Your task to perform on an android device: create a new album in the google photos Image 0: 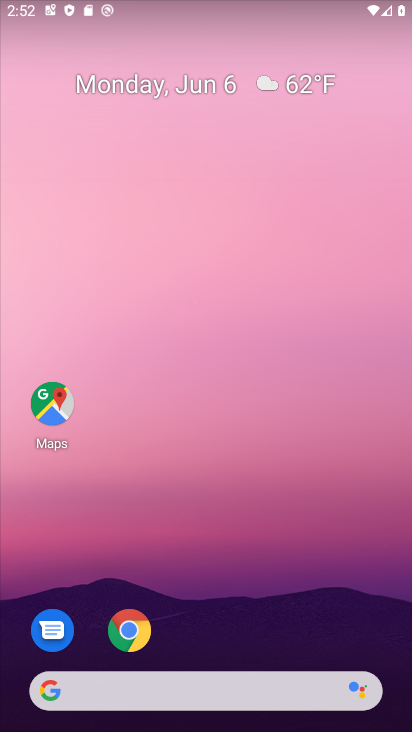
Step 0: drag from (250, 630) to (216, 351)
Your task to perform on an android device: create a new album in the google photos Image 1: 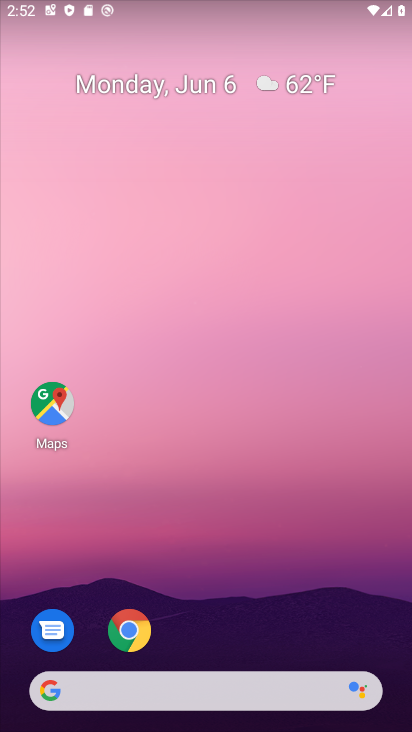
Step 1: drag from (193, 576) to (188, 246)
Your task to perform on an android device: create a new album in the google photos Image 2: 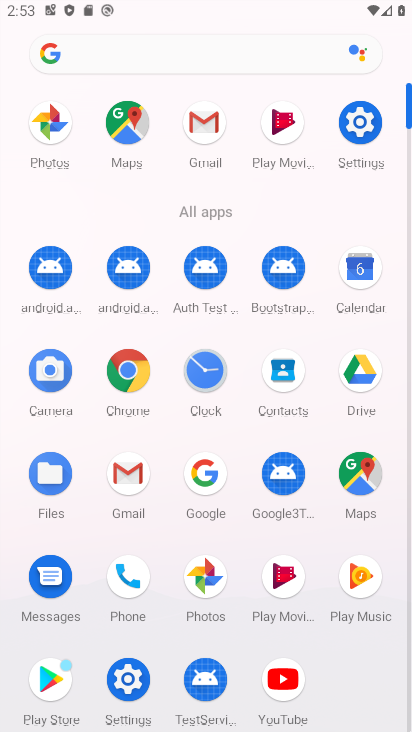
Step 2: click (206, 605)
Your task to perform on an android device: create a new album in the google photos Image 3: 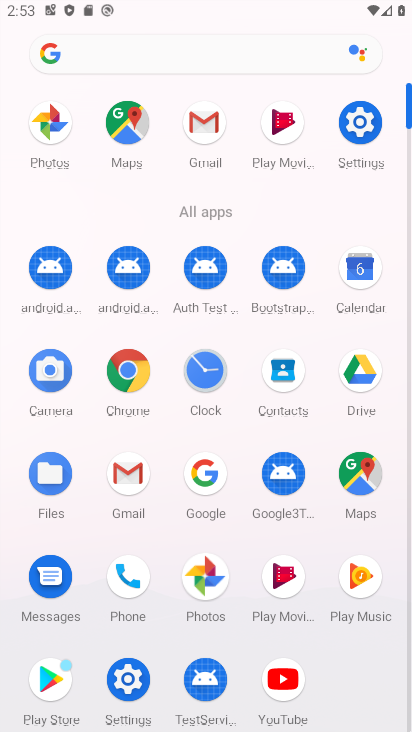
Step 3: click (194, 560)
Your task to perform on an android device: create a new album in the google photos Image 4: 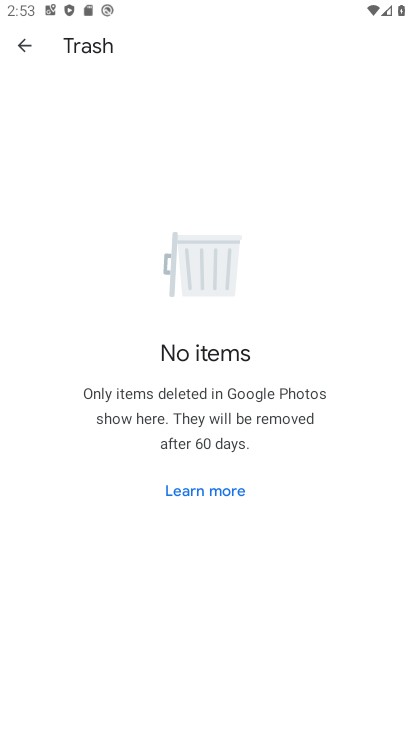
Step 4: click (17, 32)
Your task to perform on an android device: create a new album in the google photos Image 5: 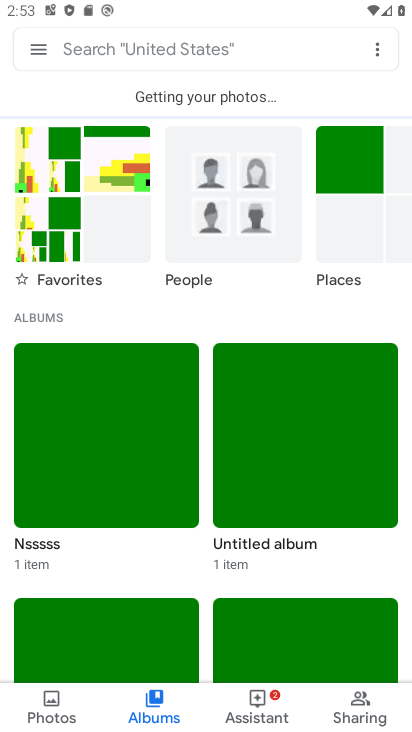
Step 5: click (28, 162)
Your task to perform on an android device: create a new album in the google photos Image 6: 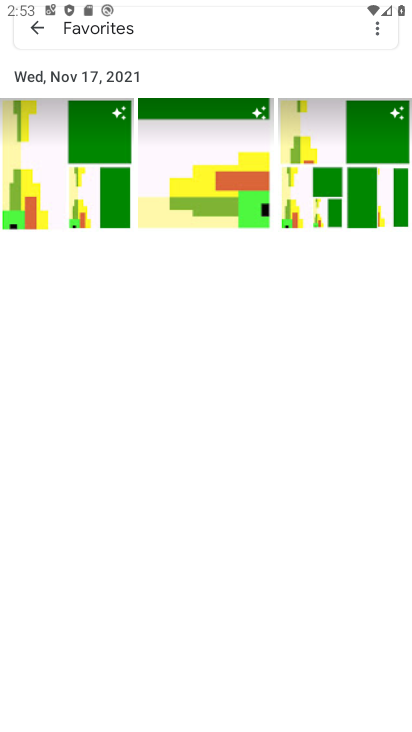
Step 6: click (47, 162)
Your task to perform on an android device: create a new album in the google photos Image 7: 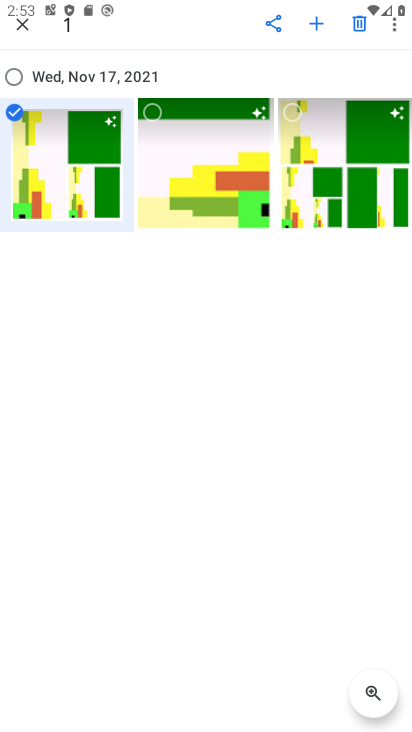
Step 7: click (320, 19)
Your task to perform on an android device: create a new album in the google photos Image 8: 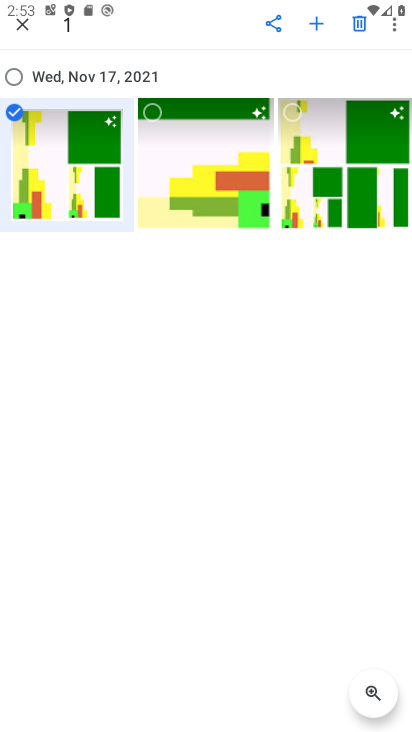
Step 8: click (321, 18)
Your task to perform on an android device: create a new album in the google photos Image 9: 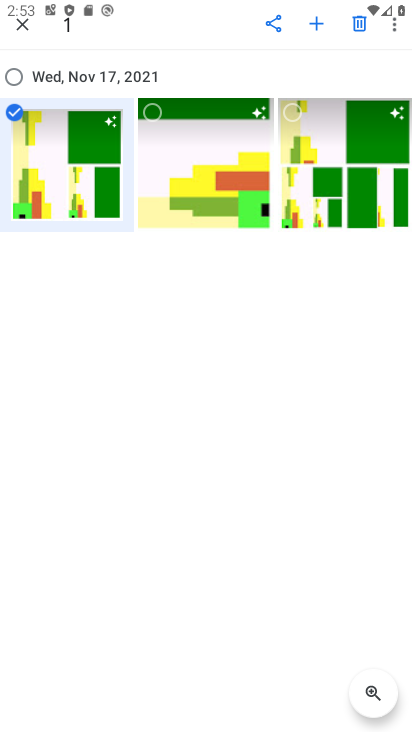
Step 9: click (312, 14)
Your task to perform on an android device: create a new album in the google photos Image 10: 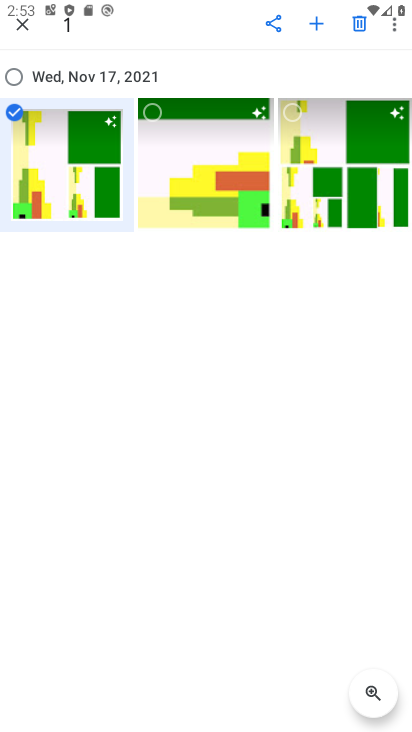
Step 10: click (313, 25)
Your task to perform on an android device: create a new album in the google photos Image 11: 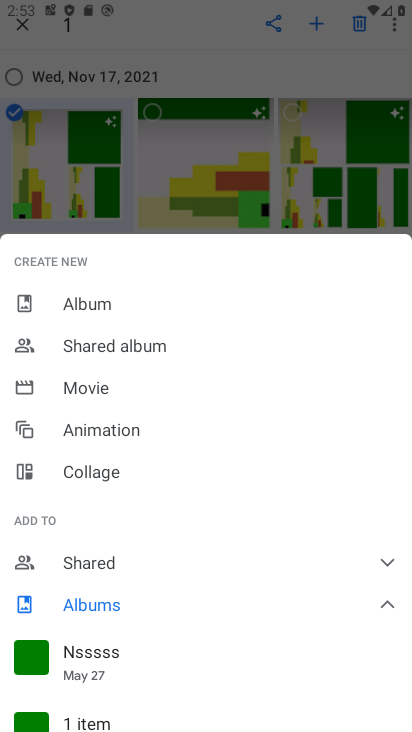
Step 11: click (100, 314)
Your task to perform on an android device: create a new album in the google photos Image 12: 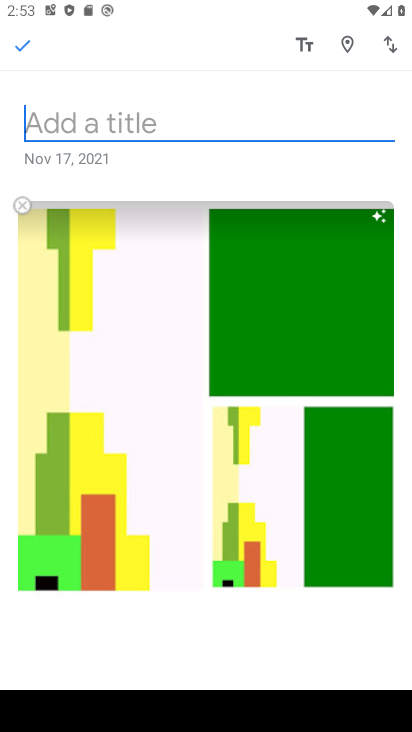
Step 12: click (176, 107)
Your task to perform on an android device: create a new album in the google photos Image 13: 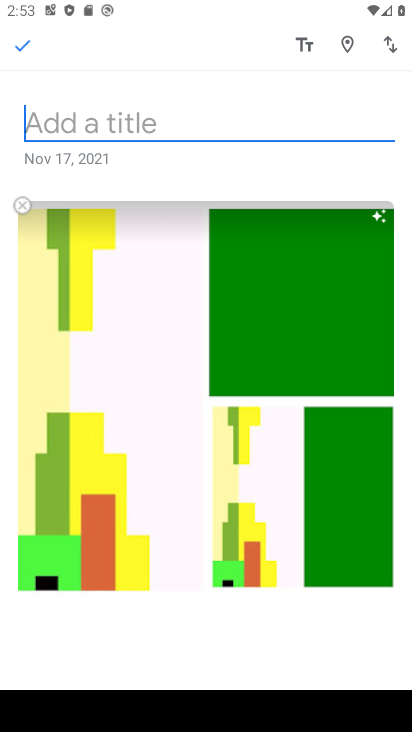
Step 13: type "zxcvbnm"
Your task to perform on an android device: create a new album in the google photos Image 14: 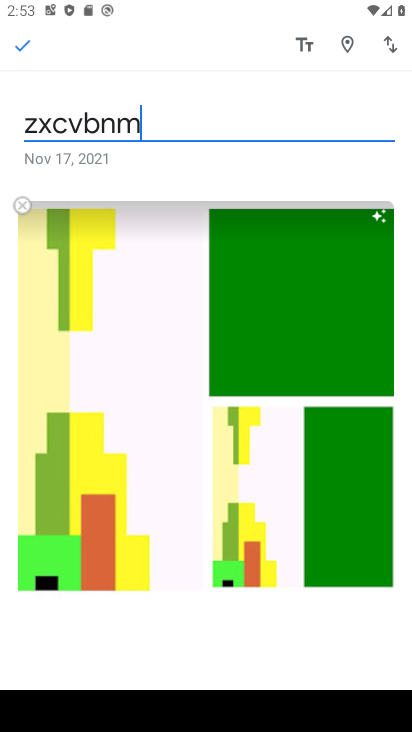
Step 14: click (27, 39)
Your task to perform on an android device: create a new album in the google photos Image 15: 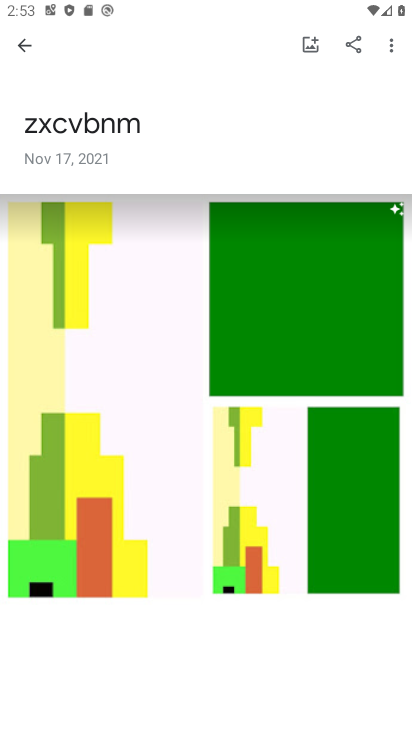
Step 15: task complete